Your task to perform on an android device: clear history in the chrome app Image 0: 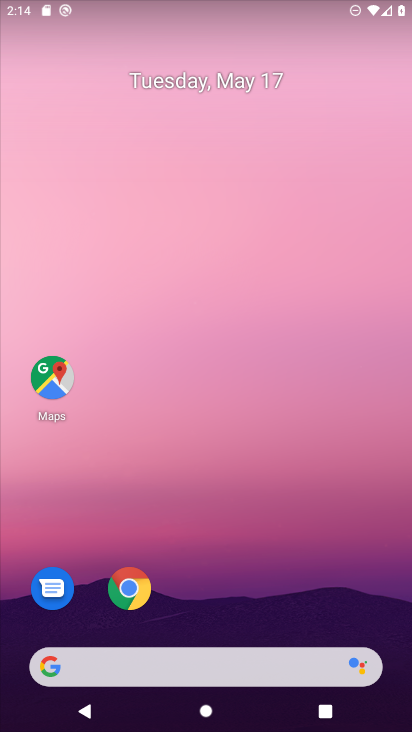
Step 0: click (130, 596)
Your task to perform on an android device: clear history in the chrome app Image 1: 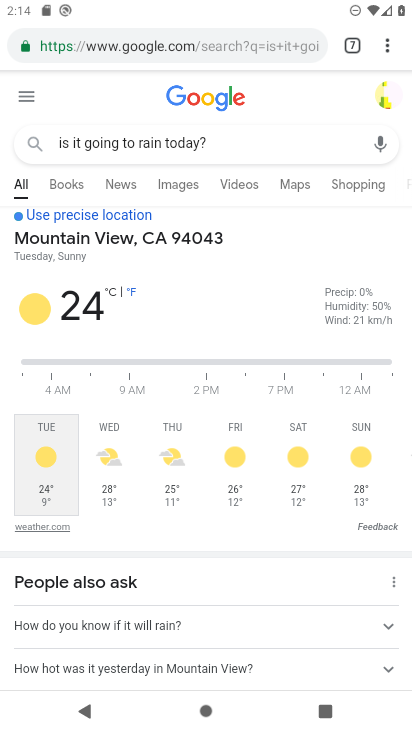
Step 1: drag from (384, 42) to (237, 256)
Your task to perform on an android device: clear history in the chrome app Image 2: 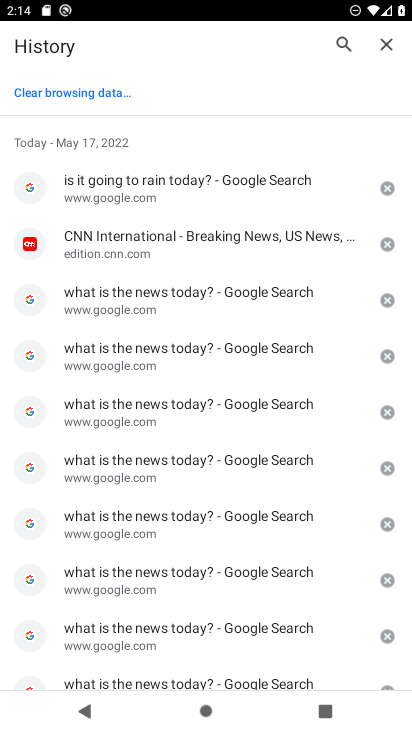
Step 2: click (70, 95)
Your task to perform on an android device: clear history in the chrome app Image 3: 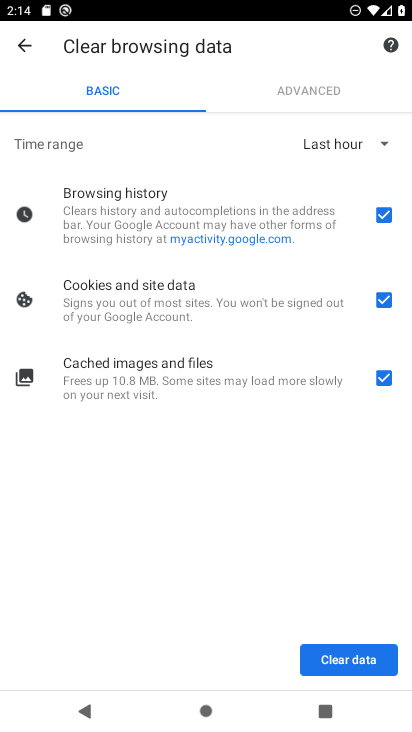
Step 3: click (386, 300)
Your task to perform on an android device: clear history in the chrome app Image 4: 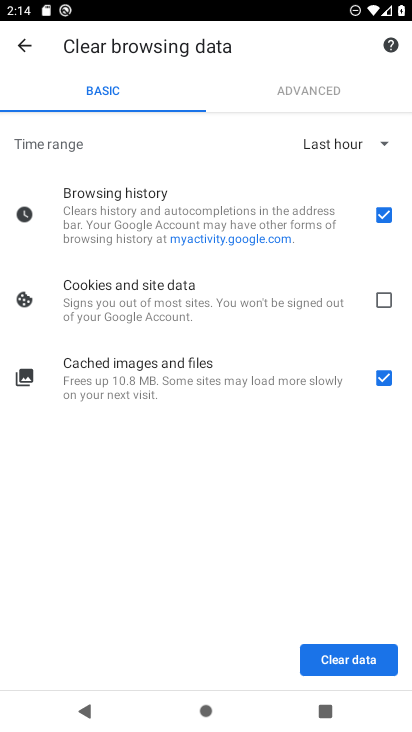
Step 4: click (387, 374)
Your task to perform on an android device: clear history in the chrome app Image 5: 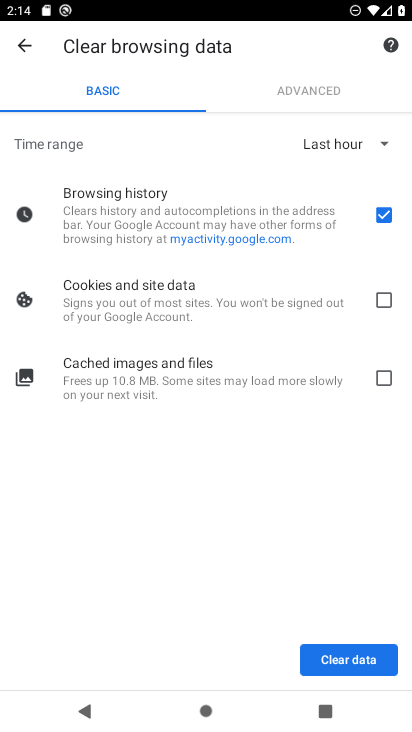
Step 5: click (348, 655)
Your task to perform on an android device: clear history in the chrome app Image 6: 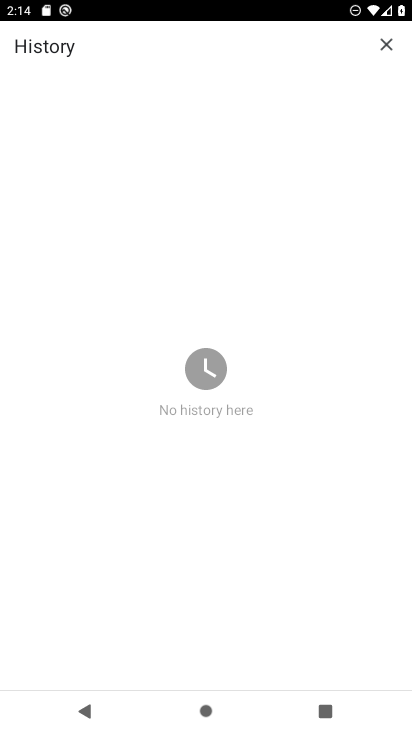
Step 6: task complete